Your task to perform on an android device: Clear the shopping cart on bestbuy. Search for energizer triple a on bestbuy, select the first entry, and add it to the cart. Image 0: 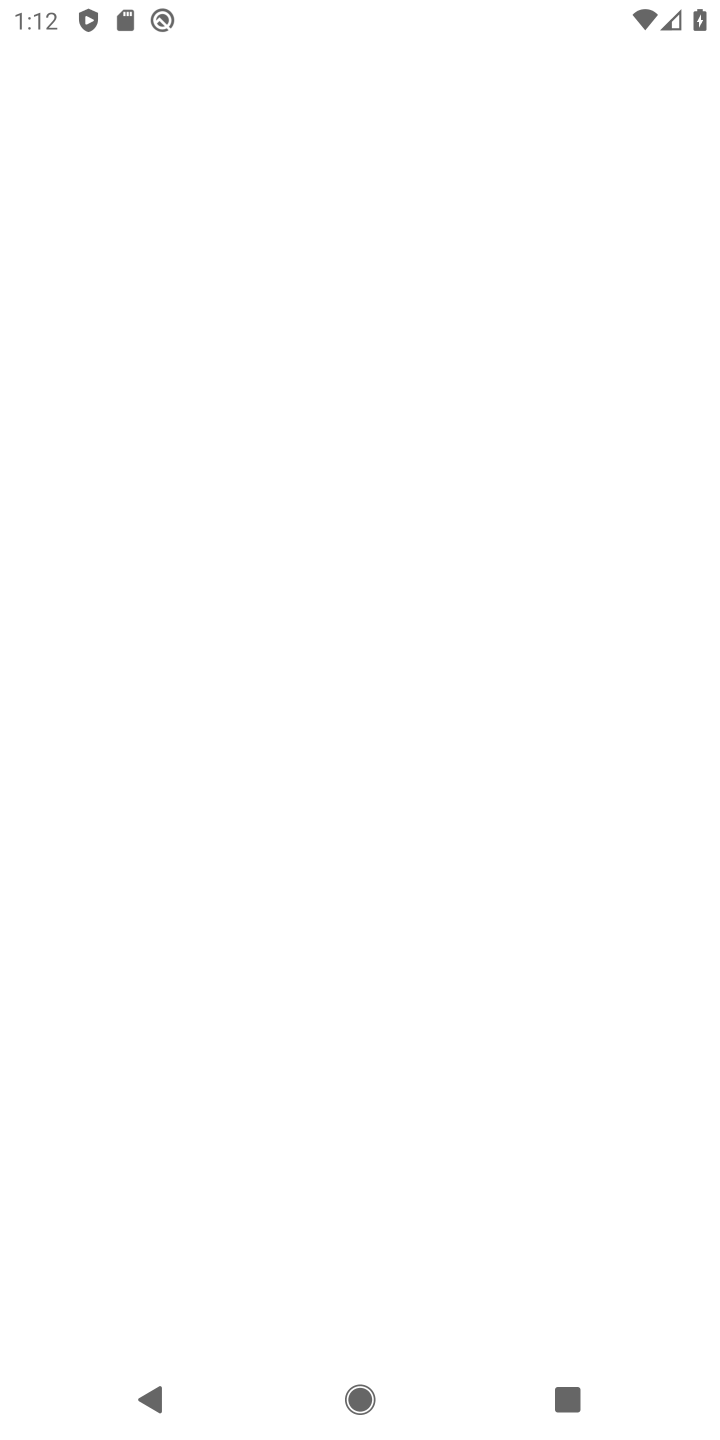
Step 0: press home button
Your task to perform on an android device: Clear the shopping cart on bestbuy. Search for energizer triple a on bestbuy, select the first entry, and add it to the cart. Image 1: 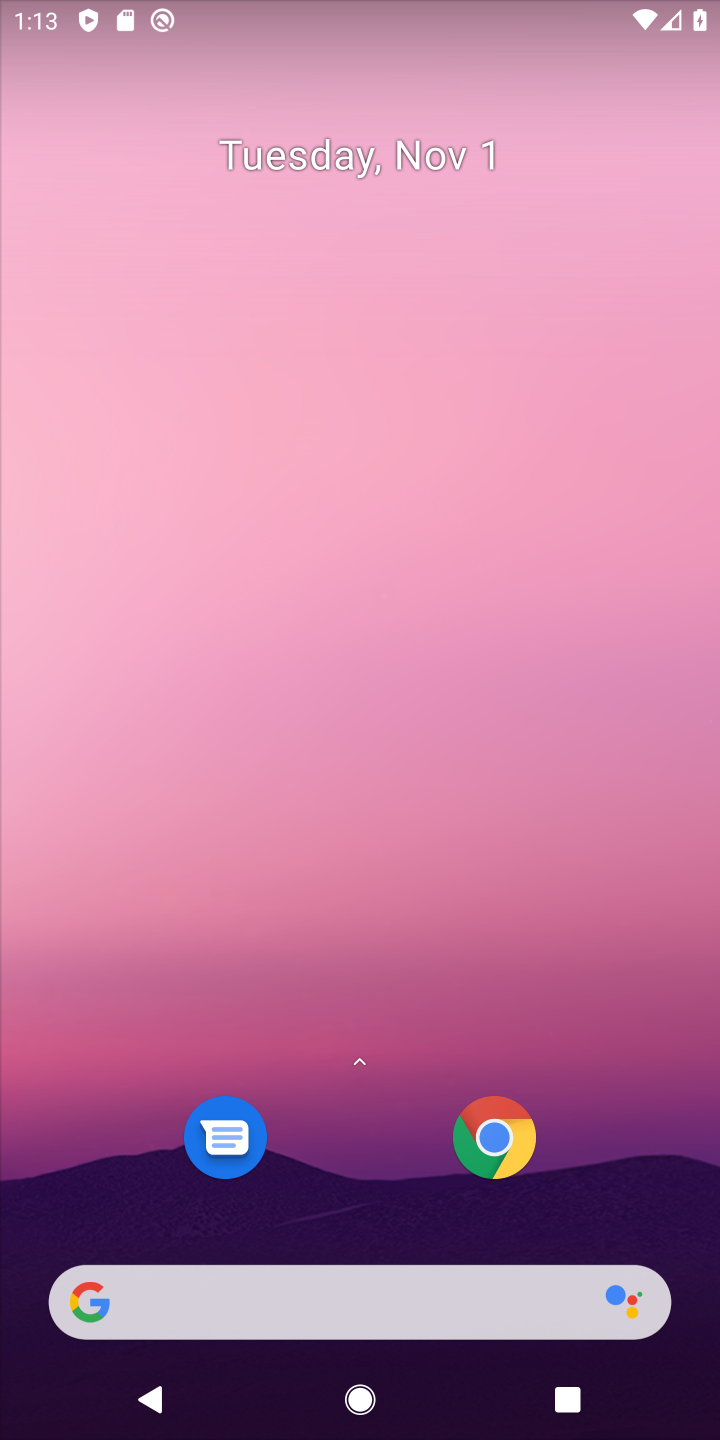
Step 1: click (311, 1284)
Your task to perform on an android device: Clear the shopping cart on bestbuy. Search for energizer triple a on bestbuy, select the first entry, and add it to the cart. Image 2: 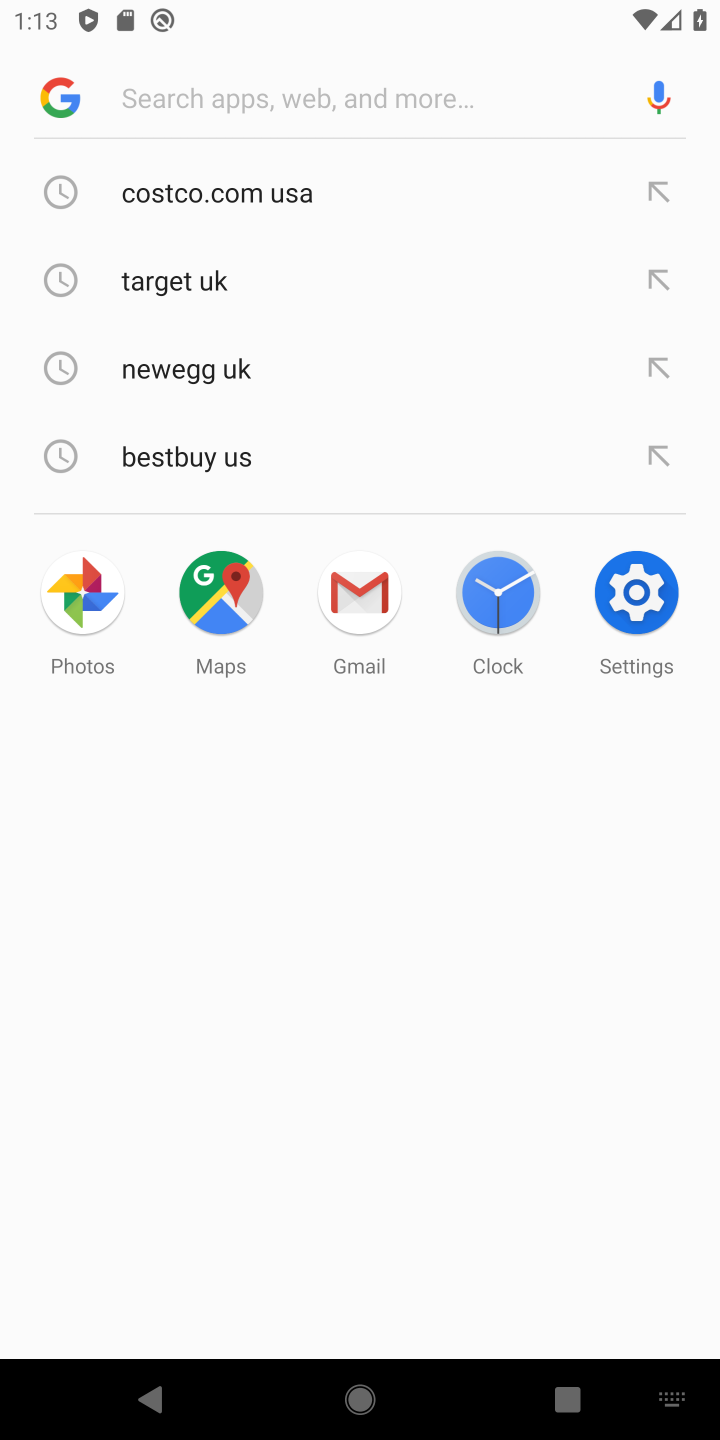
Step 2: type "bestbuy"
Your task to perform on an android device: Clear the shopping cart on bestbuy. Search for energizer triple a on bestbuy, select the first entry, and add it to the cart. Image 3: 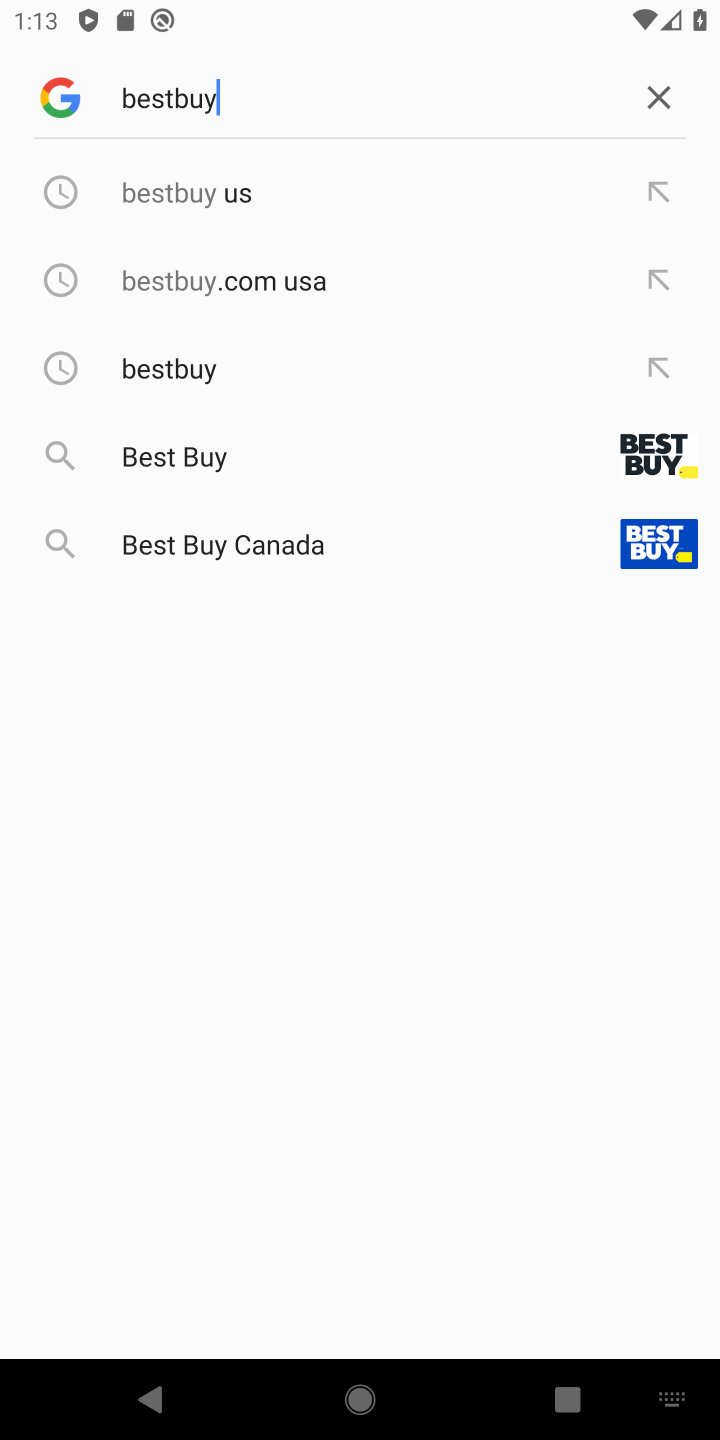
Step 3: click (148, 218)
Your task to perform on an android device: Clear the shopping cart on bestbuy. Search for energizer triple a on bestbuy, select the first entry, and add it to the cart. Image 4: 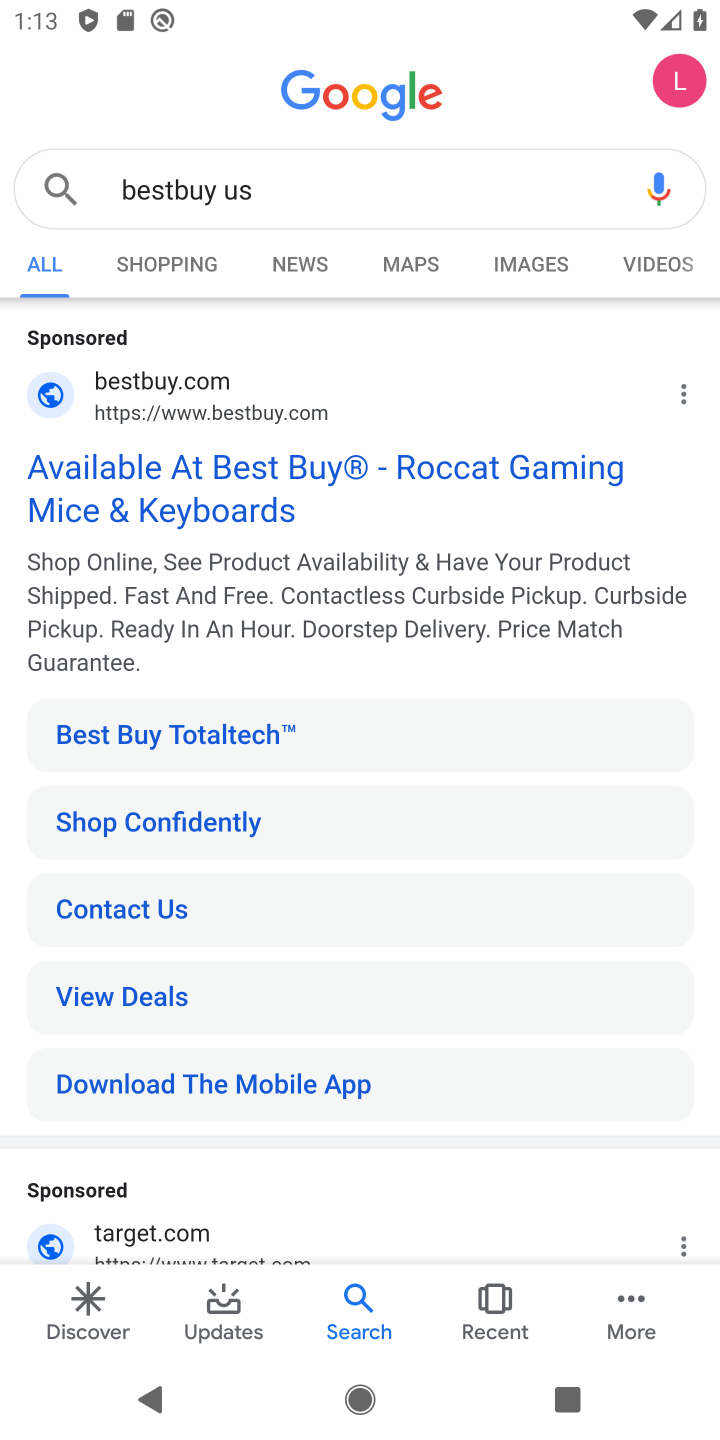
Step 4: click (242, 495)
Your task to perform on an android device: Clear the shopping cart on bestbuy. Search for energizer triple a on bestbuy, select the first entry, and add it to the cart. Image 5: 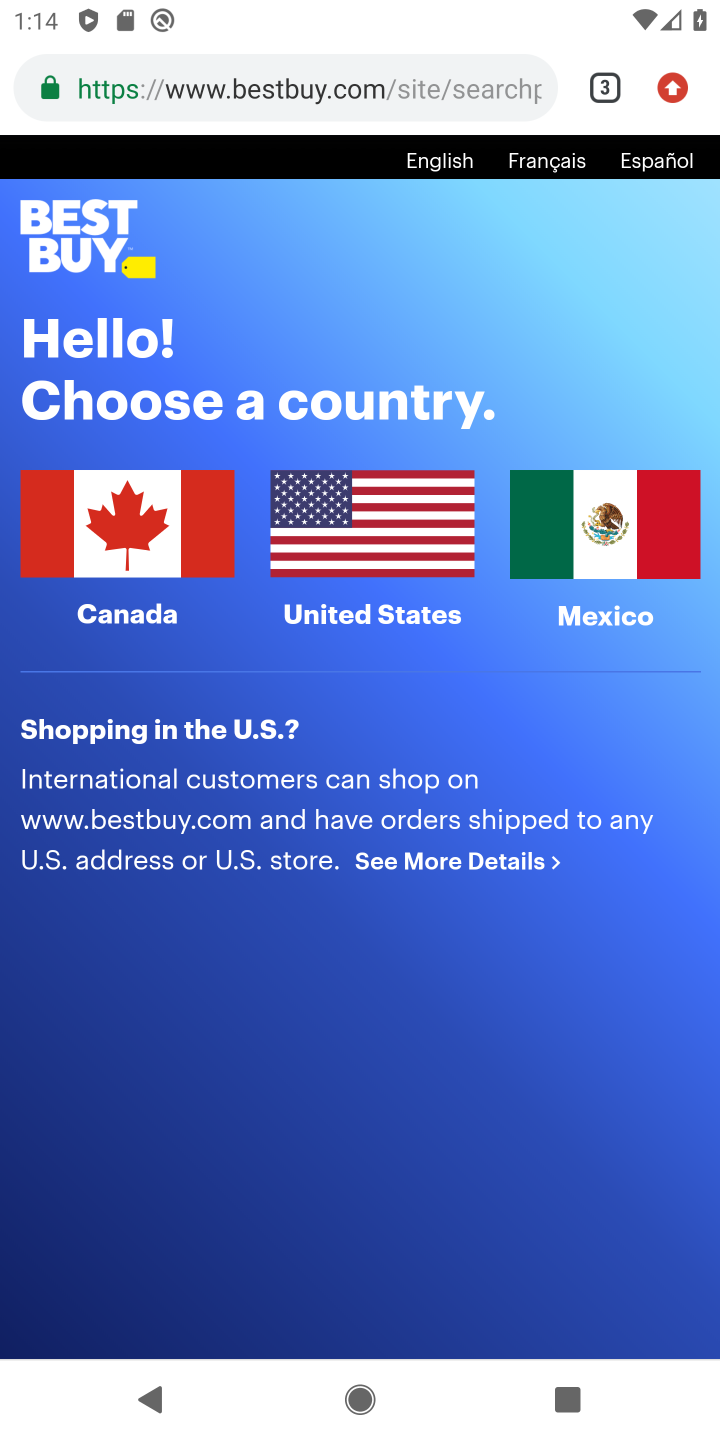
Step 5: click (82, 599)
Your task to perform on an android device: Clear the shopping cart on bestbuy. Search for energizer triple a on bestbuy, select the first entry, and add it to the cart. Image 6: 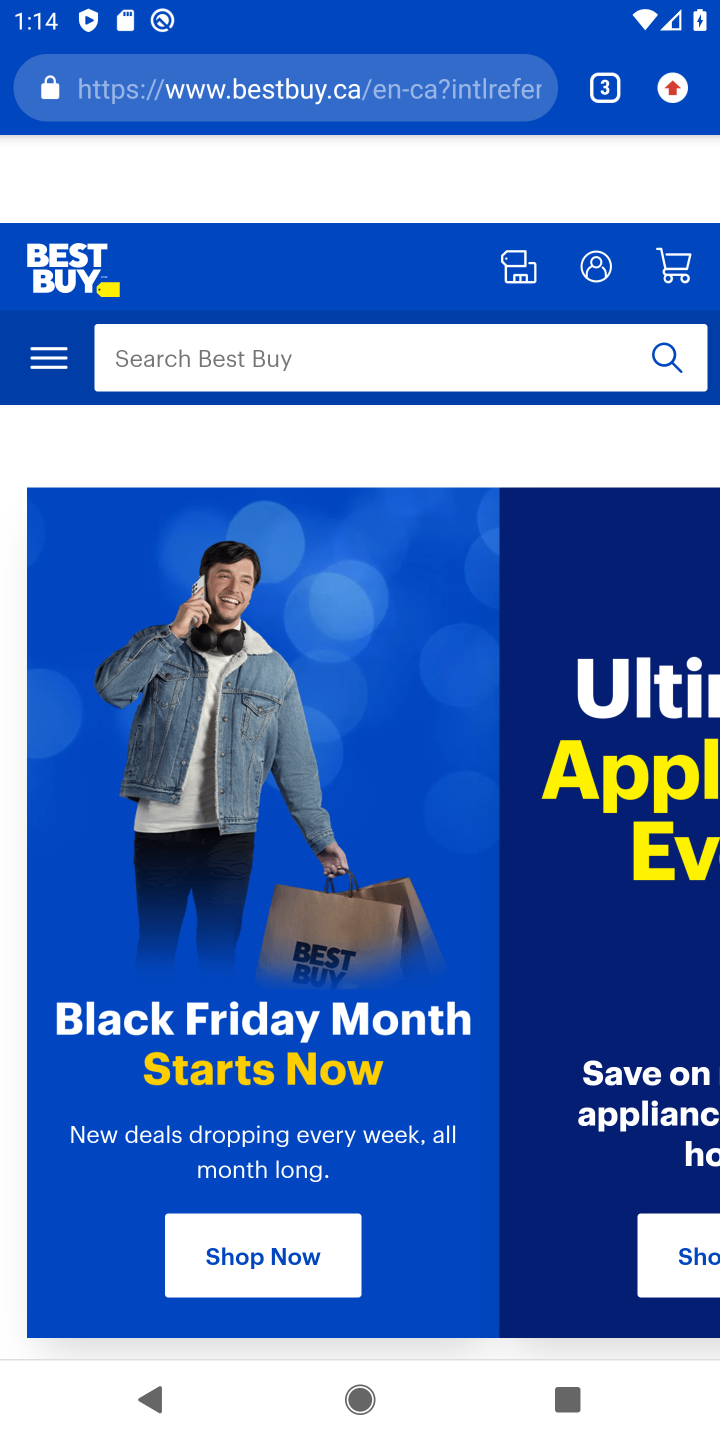
Step 6: click (144, 360)
Your task to perform on an android device: Clear the shopping cart on bestbuy. Search for energizer triple a on bestbuy, select the first entry, and add it to the cart. Image 7: 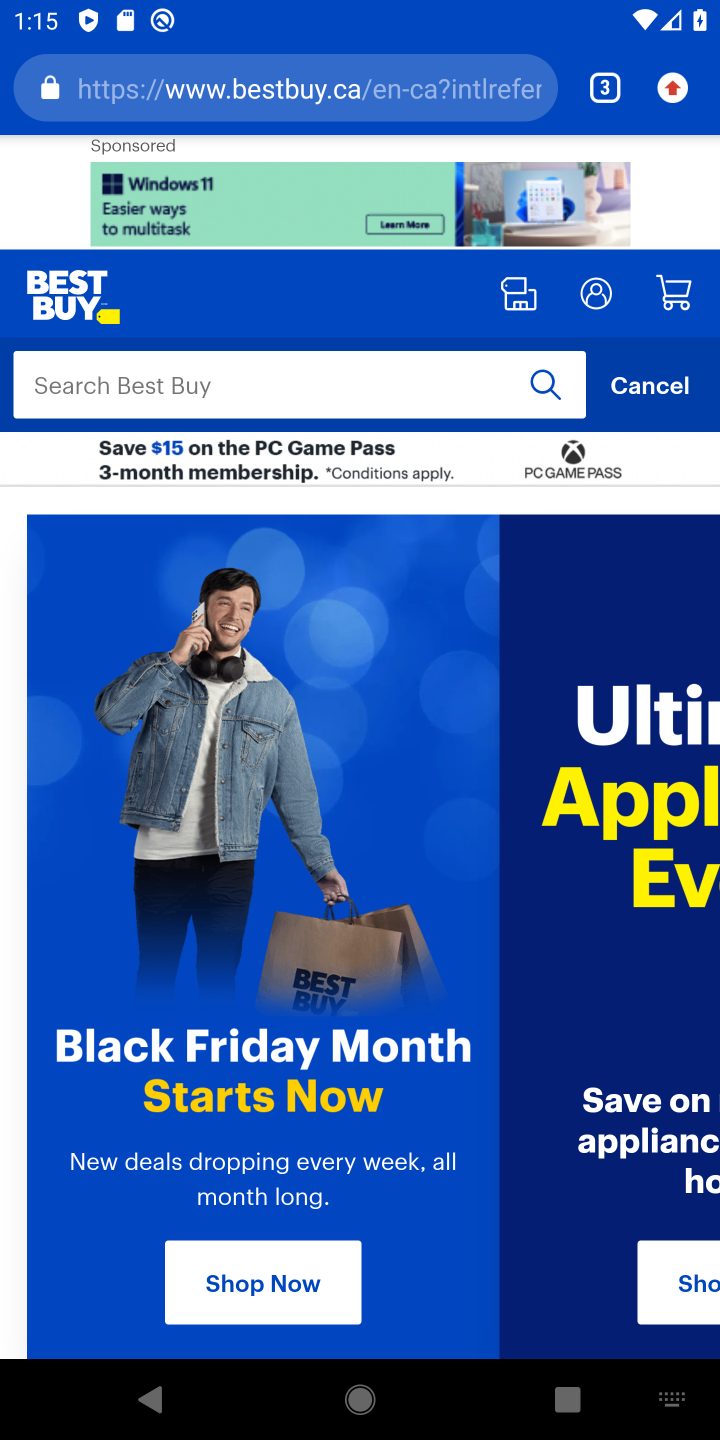
Step 7: type "energizer"
Your task to perform on an android device: Clear the shopping cart on bestbuy. Search for energizer triple a on bestbuy, select the first entry, and add it to the cart. Image 8: 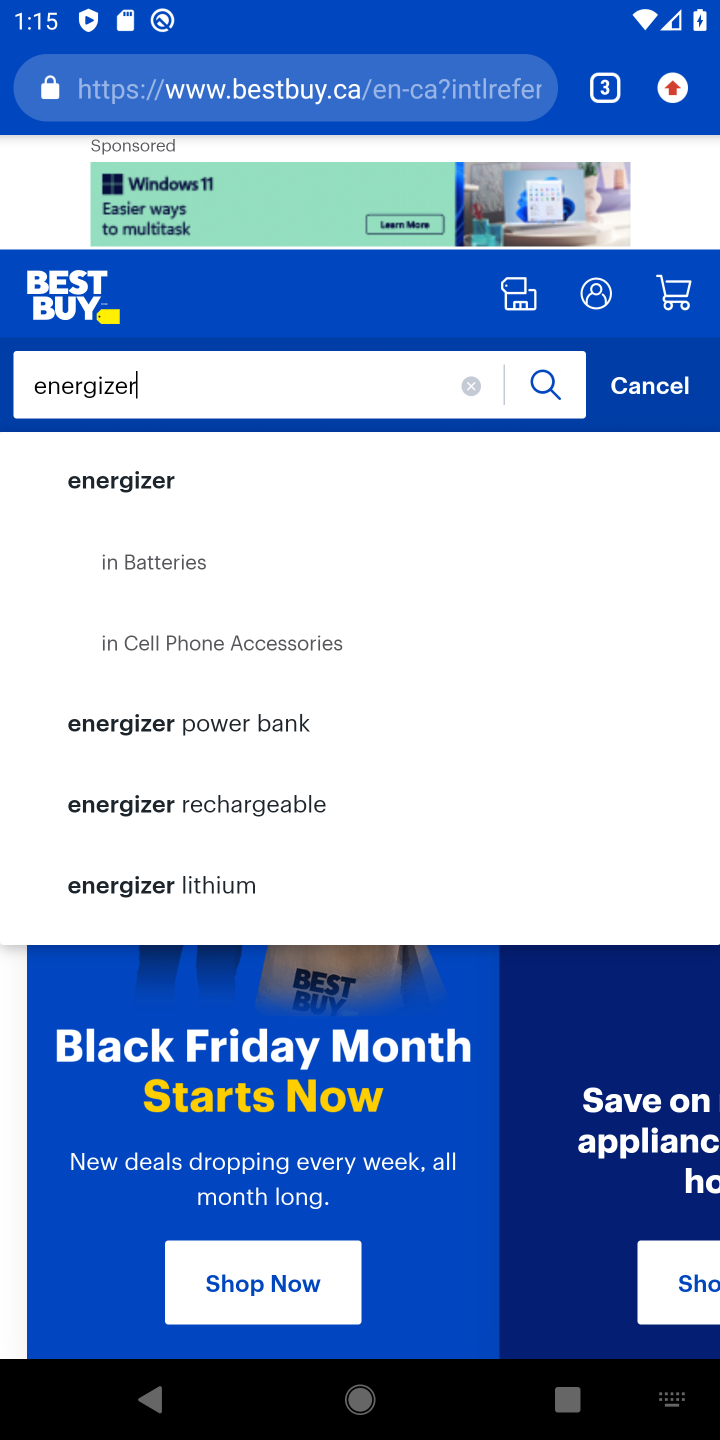
Step 8: click (351, 479)
Your task to perform on an android device: Clear the shopping cart on bestbuy. Search for energizer triple a on bestbuy, select the first entry, and add it to the cart. Image 9: 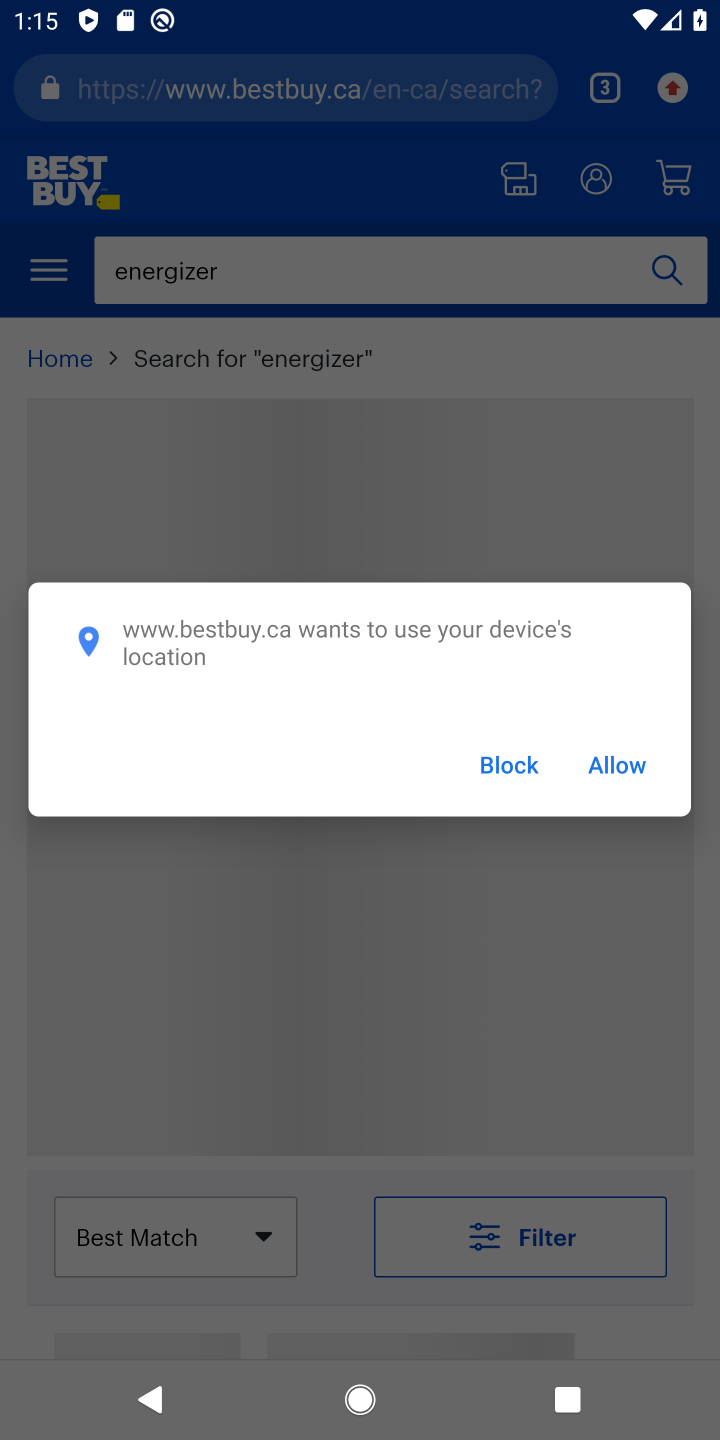
Step 9: click (517, 767)
Your task to perform on an android device: Clear the shopping cart on bestbuy. Search for energizer triple a on bestbuy, select the first entry, and add it to the cart. Image 10: 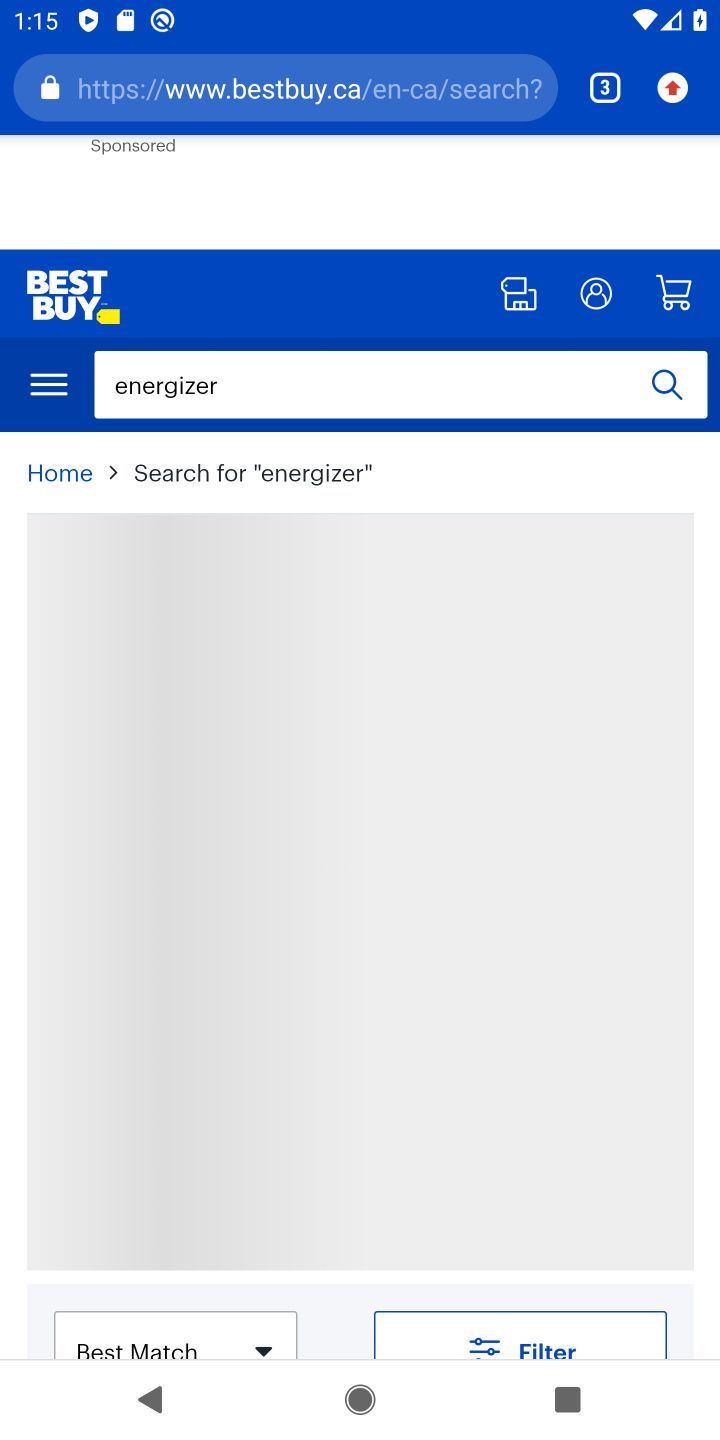
Step 10: task complete